Your task to perform on an android device: Open Chrome and go to the settings page Image 0: 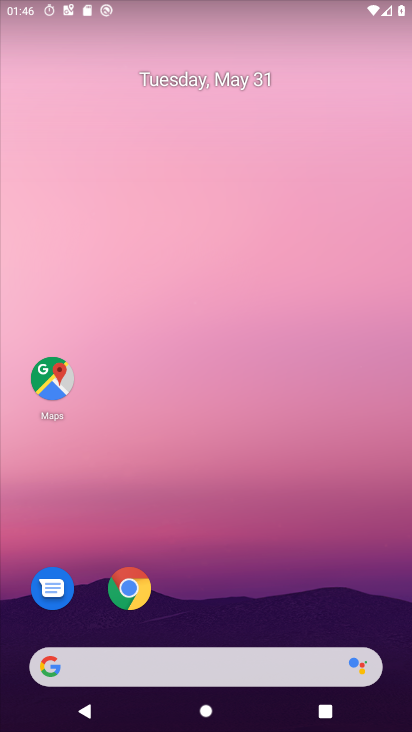
Step 0: drag from (317, 599) to (374, 9)
Your task to perform on an android device: Open Chrome and go to the settings page Image 1: 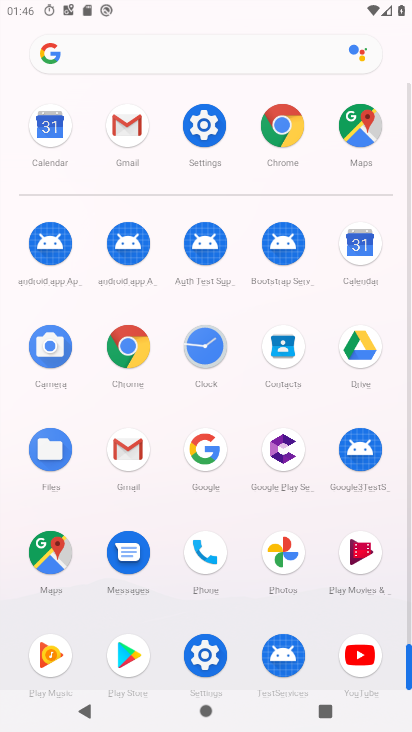
Step 1: click (122, 354)
Your task to perform on an android device: Open Chrome and go to the settings page Image 2: 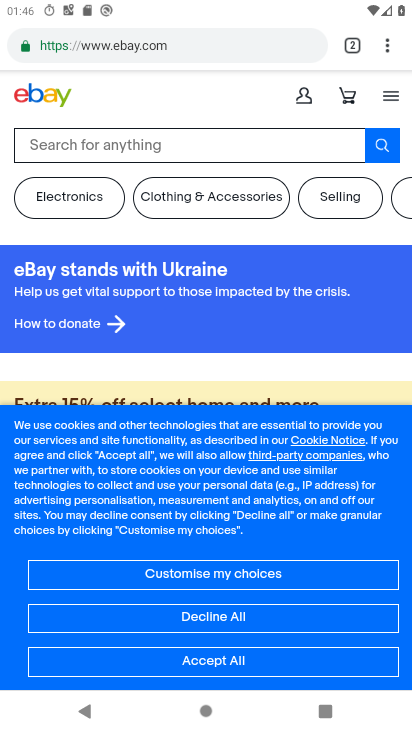
Step 2: click (389, 48)
Your task to perform on an android device: Open Chrome and go to the settings page Image 3: 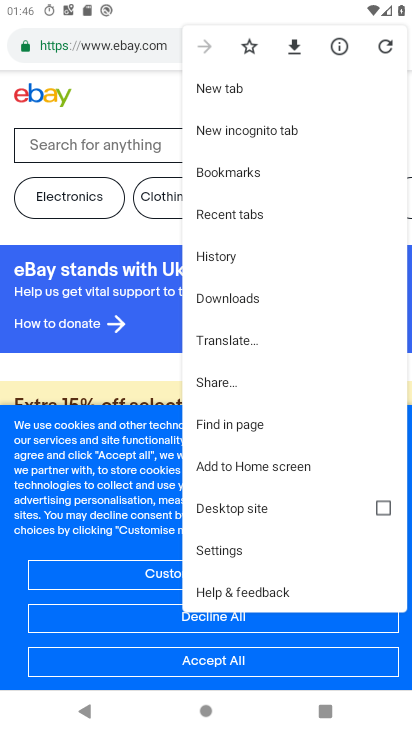
Step 3: click (241, 537)
Your task to perform on an android device: Open Chrome and go to the settings page Image 4: 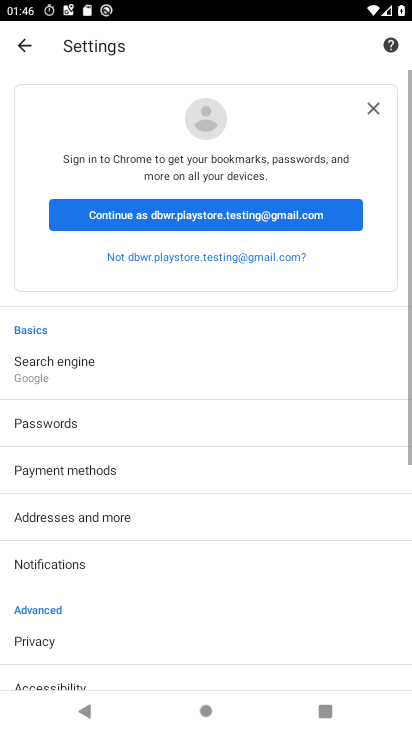
Step 4: task complete